Your task to perform on an android device: Open ESPN.com Image 0: 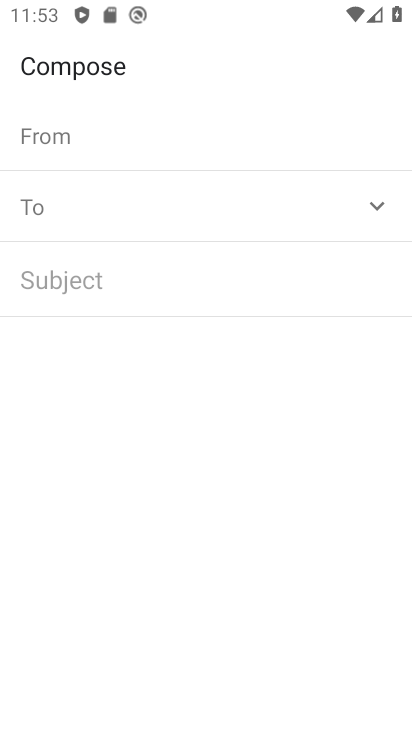
Step 0: drag from (198, 623) to (239, 241)
Your task to perform on an android device: Open ESPN.com Image 1: 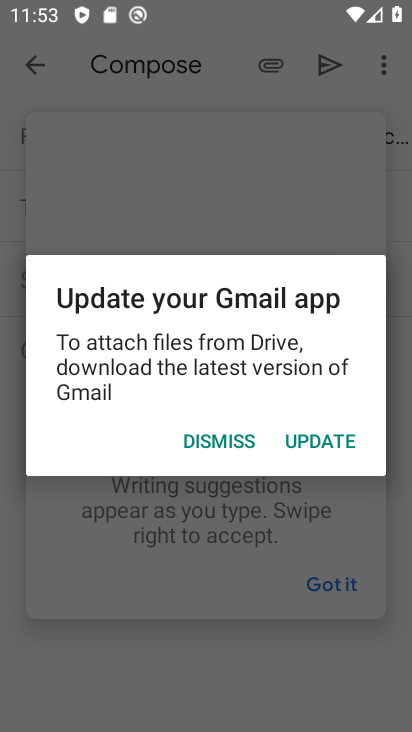
Step 1: press back button
Your task to perform on an android device: Open ESPN.com Image 2: 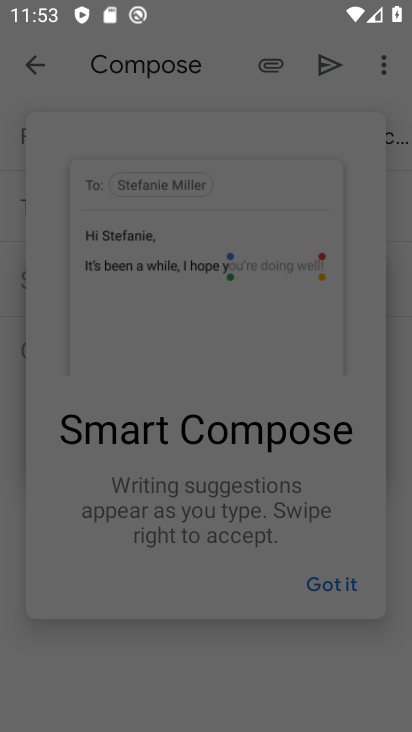
Step 2: press back button
Your task to perform on an android device: Open ESPN.com Image 3: 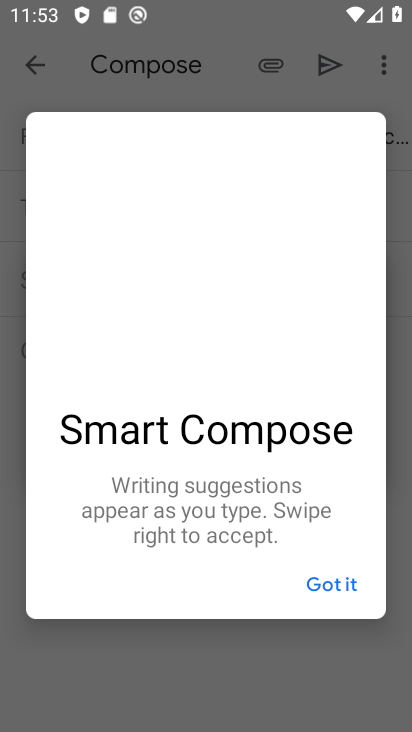
Step 3: press home button
Your task to perform on an android device: Open ESPN.com Image 4: 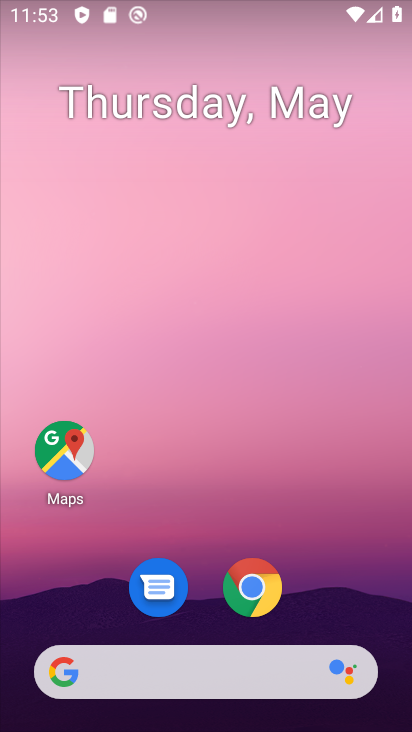
Step 4: click (262, 568)
Your task to perform on an android device: Open ESPN.com Image 5: 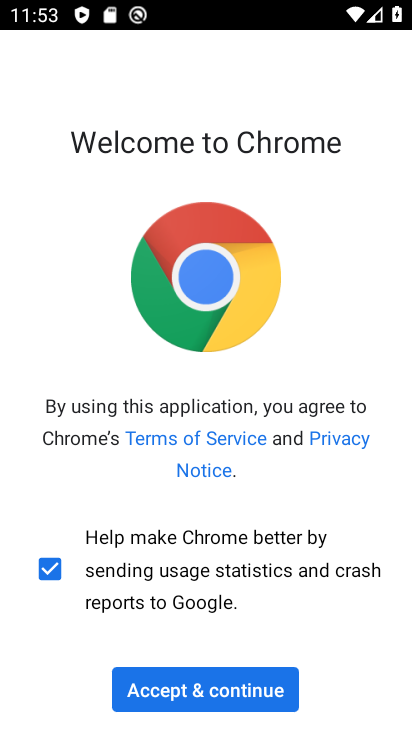
Step 5: click (212, 690)
Your task to perform on an android device: Open ESPN.com Image 6: 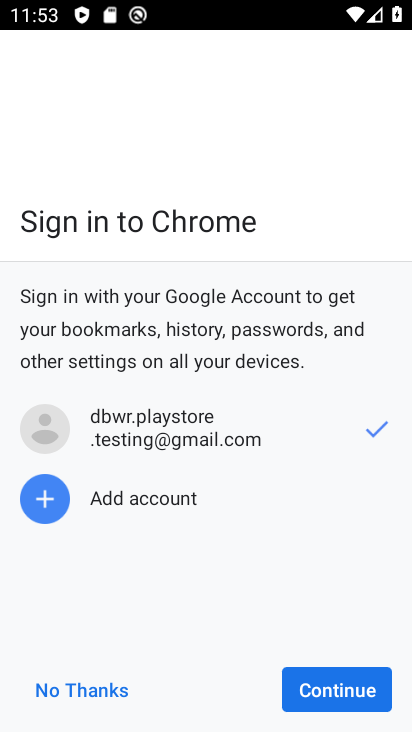
Step 6: click (318, 694)
Your task to perform on an android device: Open ESPN.com Image 7: 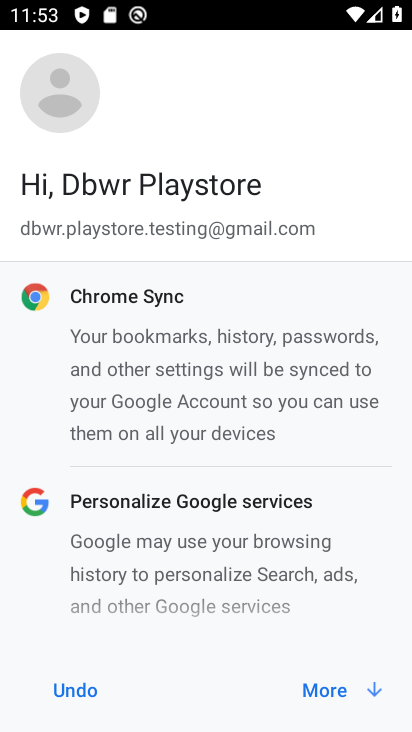
Step 7: click (315, 693)
Your task to perform on an android device: Open ESPN.com Image 8: 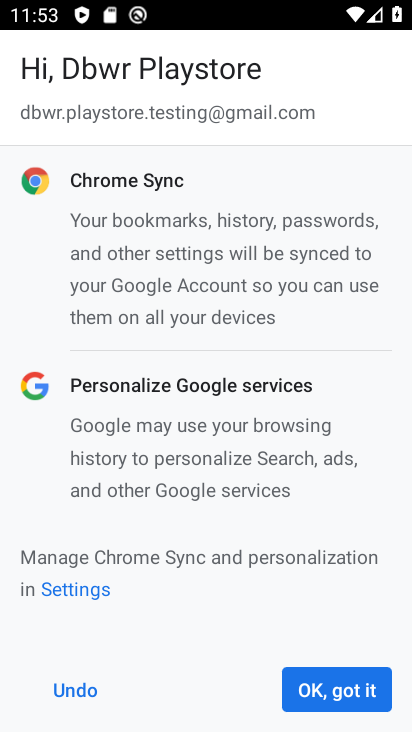
Step 8: click (317, 695)
Your task to perform on an android device: Open ESPN.com Image 9: 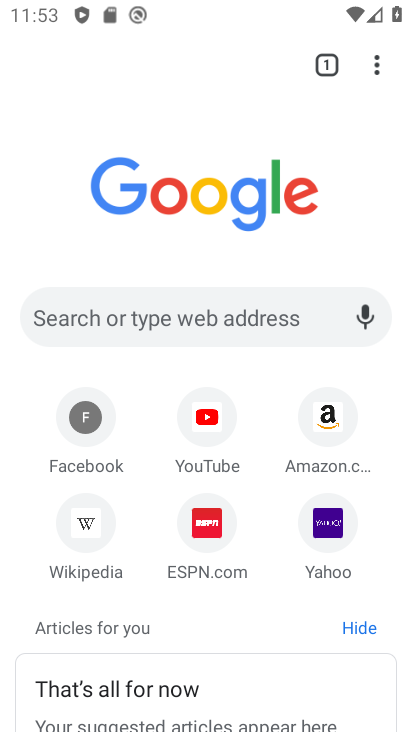
Step 9: click (326, 61)
Your task to perform on an android device: Open ESPN.com Image 10: 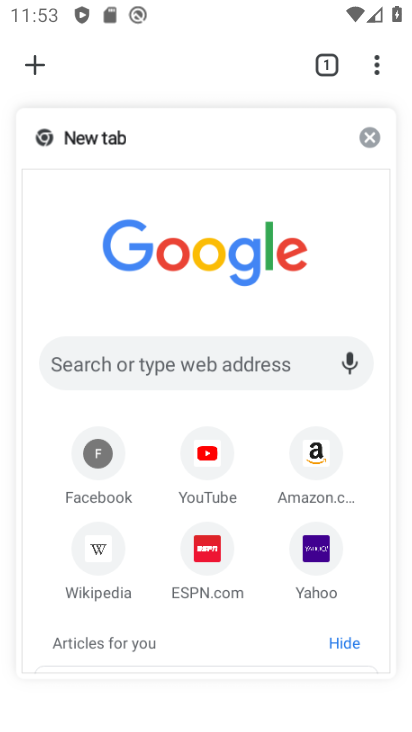
Step 10: click (226, 559)
Your task to perform on an android device: Open ESPN.com Image 11: 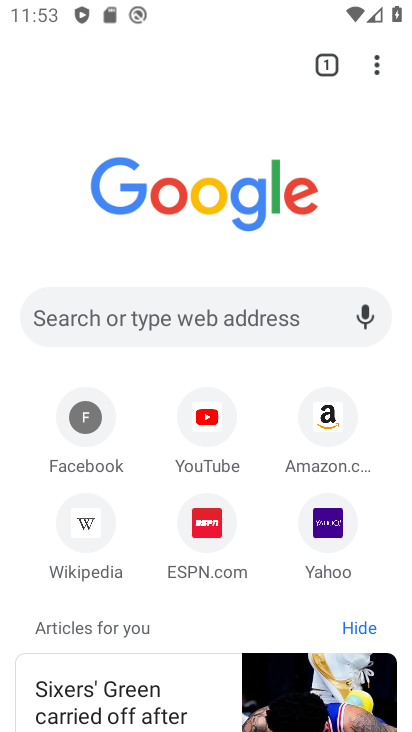
Step 11: click (225, 559)
Your task to perform on an android device: Open ESPN.com Image 12: 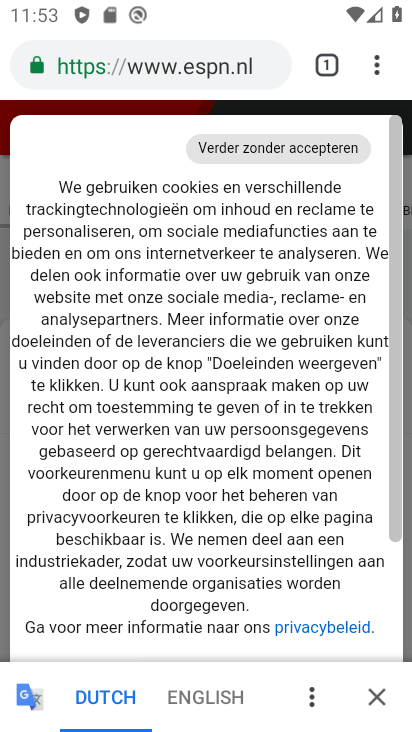
Step 12: task complete